Your task to perform on an android device: Open Youtube and go to "Your channel" Image 0: 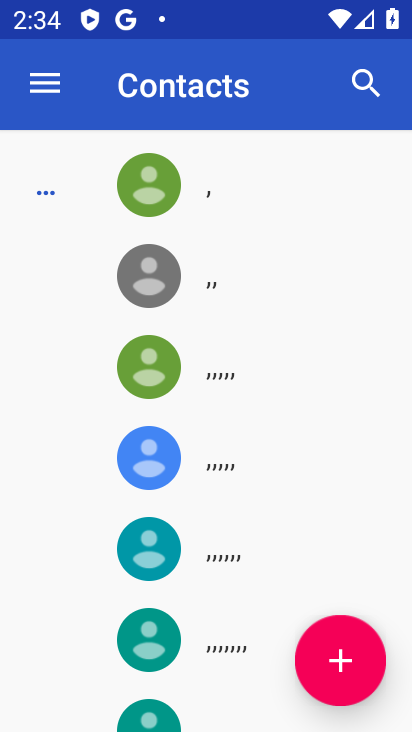
Step 0: press back button
Your task to perform on an android device: Open Youtube and go to "Your channel" Image 1: 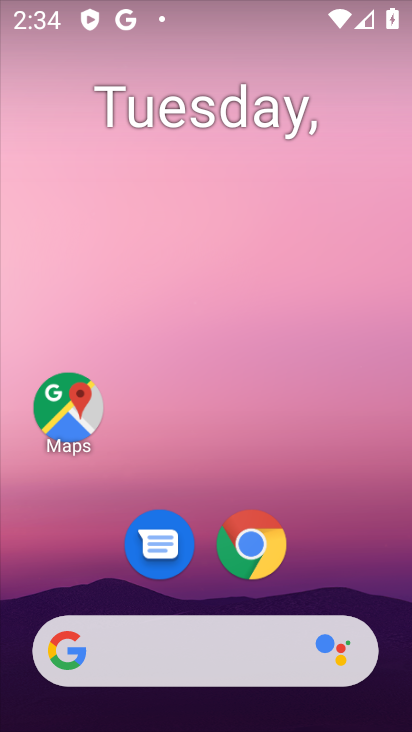
Step 1: drag from (201, 553) to (297, 50)
Your task to perform on an android device: Open Youtube and go to "Your channel" Image 2: 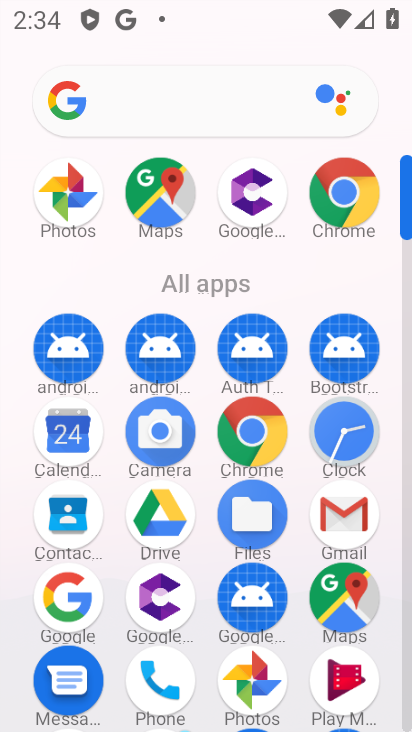
Step 2: drag from (180, 665) to (326, 33)
Your task to perform on an android device: Open Youtube and go to "Your channel" Image 3: 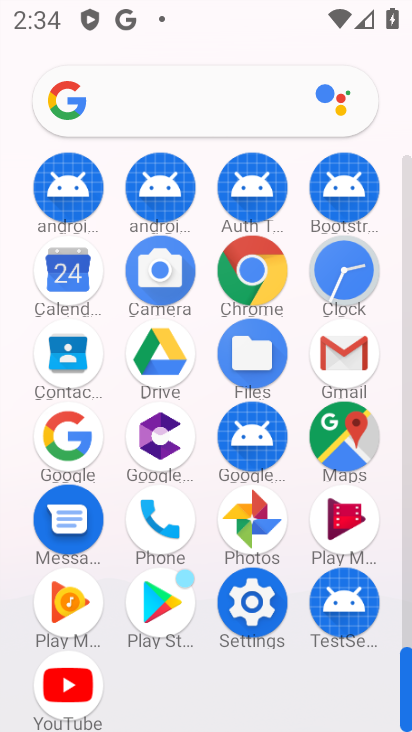
Step 3: click (75, 678)
Your task to perform on an android device: Open Youtube and go to "Your channel" Image 4: 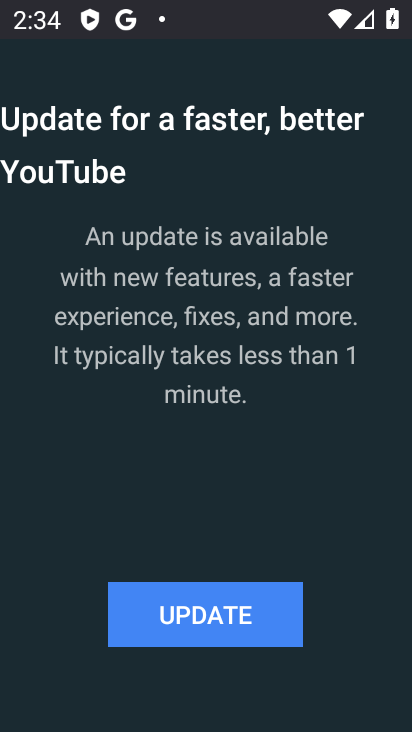
Step 4: click (210, 617)
Your task to perform on an android device: Open Youtube and go to "Your channel" Image 5: 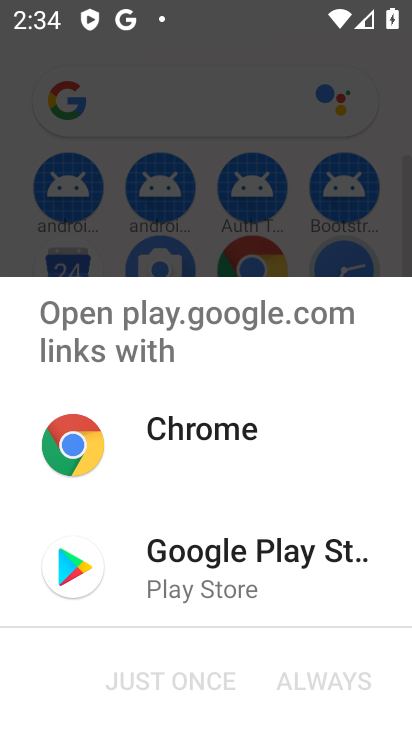
Step 5: click (212, 558)
Your task to perform on an android device: Open Youtube and go to "Your channel" Image 6: 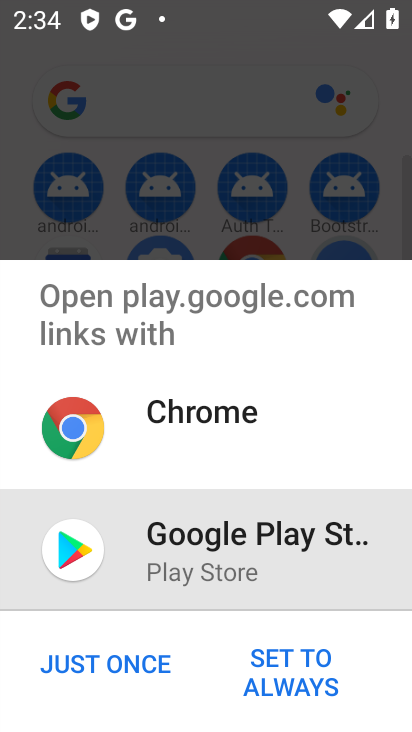
Step 6: click (108, 648)
Your task to perform on an android device: Open Youtube and go to "Your channel" Image 7: 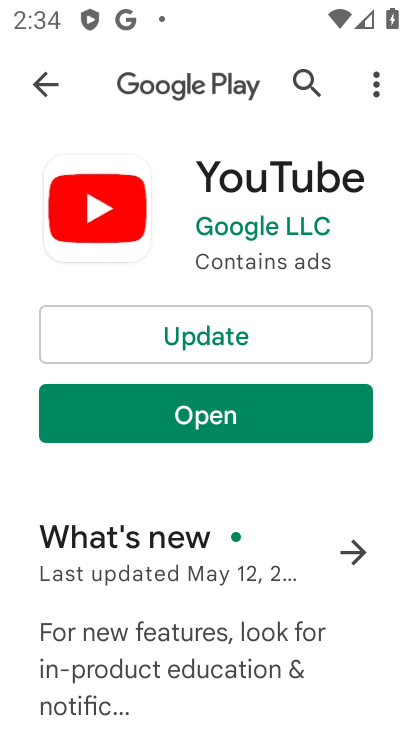
Step 7: press home button
Your task to perform on an android device: Open Youtube and go to "Your channel" Image 8: 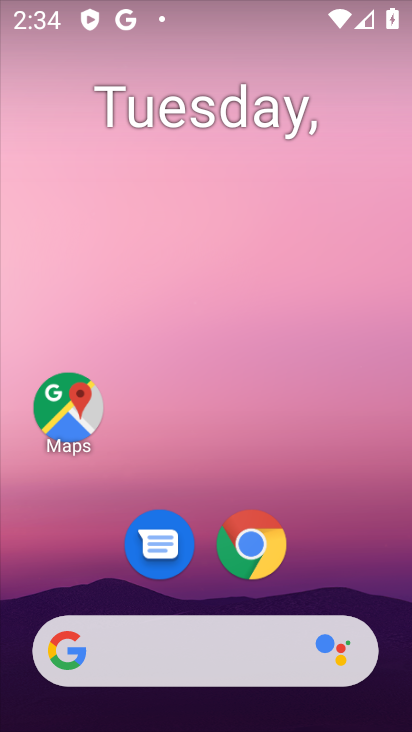
Step 8: drag from (200, 379) to (272, 10)
Your task to perform on an android device: Open Youtube and go to "Your channel" Image 9: 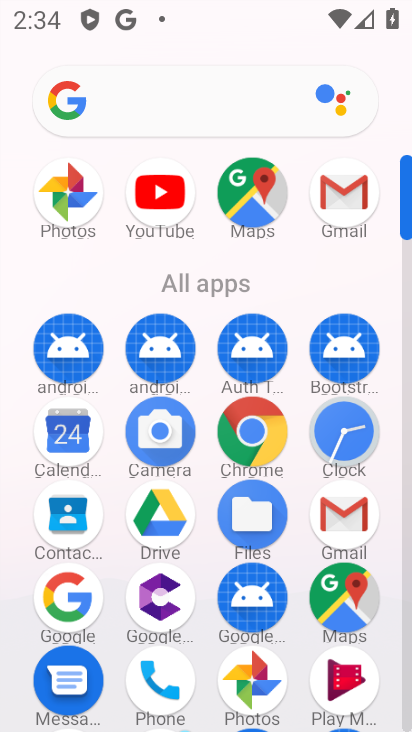
Step 9: click (159, 178)
Your task to perform on an android device: Open Youtube and go to "Your channel" Image 10: 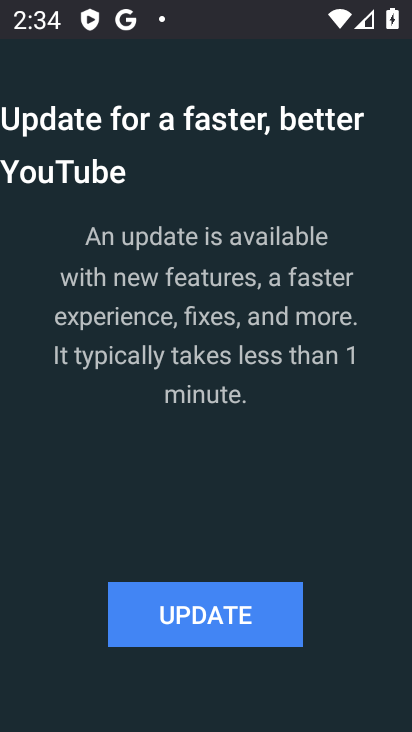
Step 10: click (185, 627)
Your task to perform on an android device: Open Youtube and go to "Your channel" Image 11: 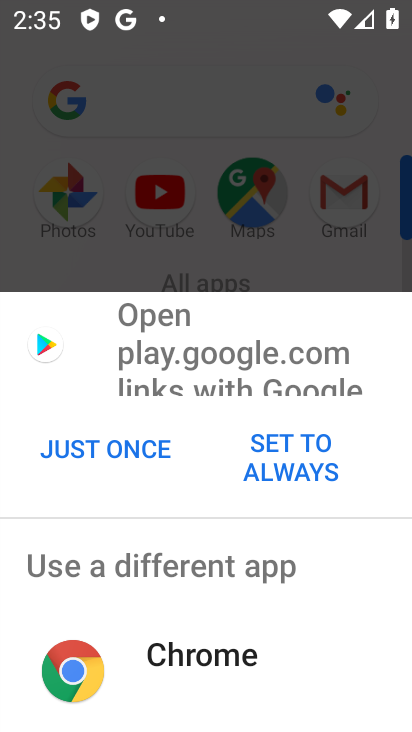
Step 11: click (149, 463)
Your task to perform on an android device: Open Youtube and go to "Your channel" Image 12: 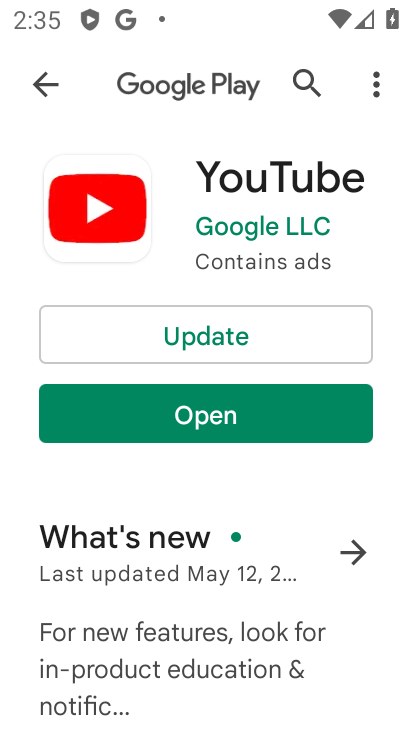
Step 12: click (213, 333)
Your task to perform on an android device: Open Youtube and go to "Your channel" Image 13: 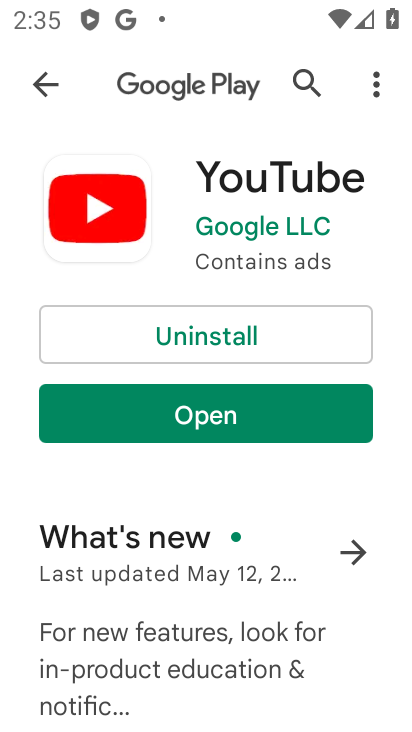
Step 13: click (241, 415)
Your task to perform on an android device: Open Youtube and go to "Your channel" Image 14: 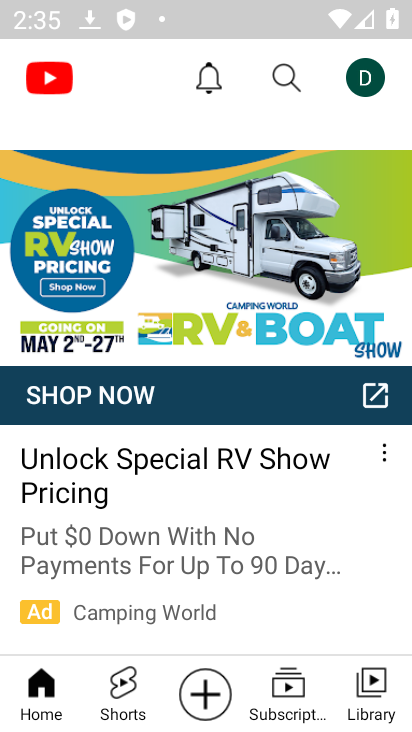
Step 14: click (373, 70)
Your task to perform on an android device: Open Youtube and go to "Your channel" Image 15: 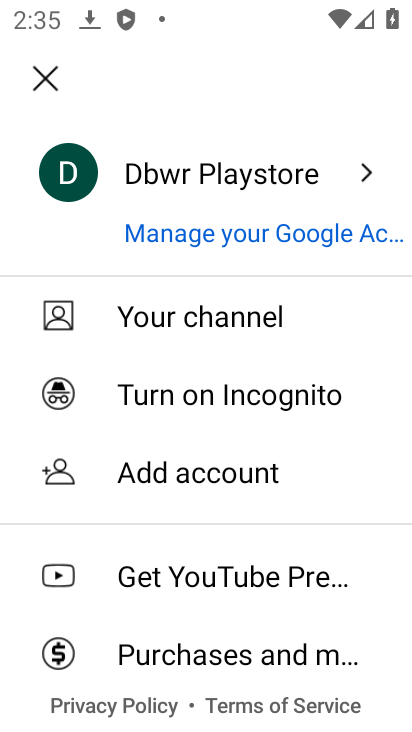
Step 15: click (198, 314)
Your task to perform on an android device: Open Youtube and go to "Your channel" Image 16: 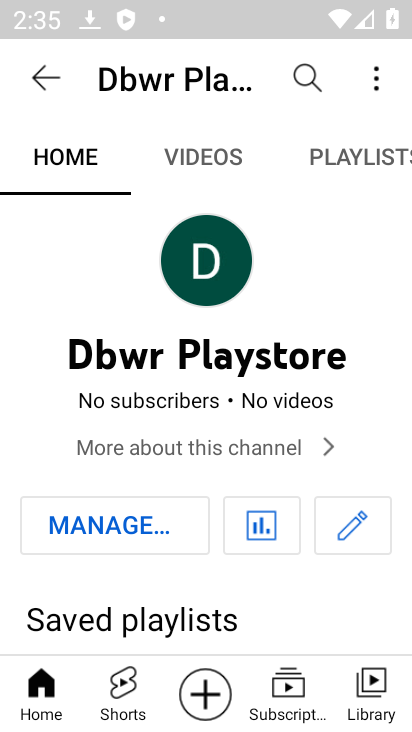
Step 16: task complete